Your task to perform on an android device: change the clock display to digital Image 0: 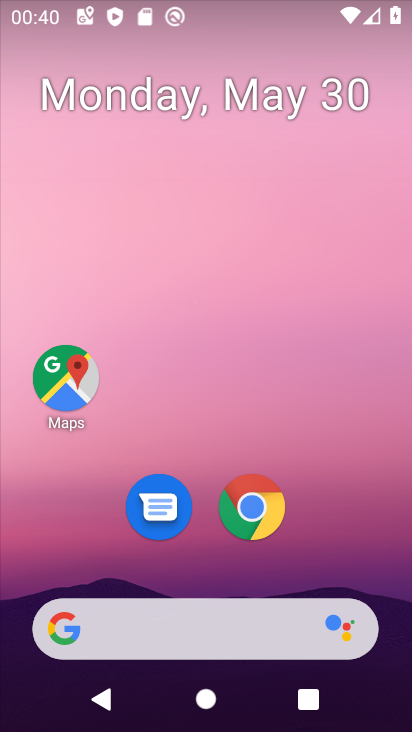
Step 0: drag from (312, 547) to (298, 247)
Your task to perform on an android device: change the clock display to digital Image 1: 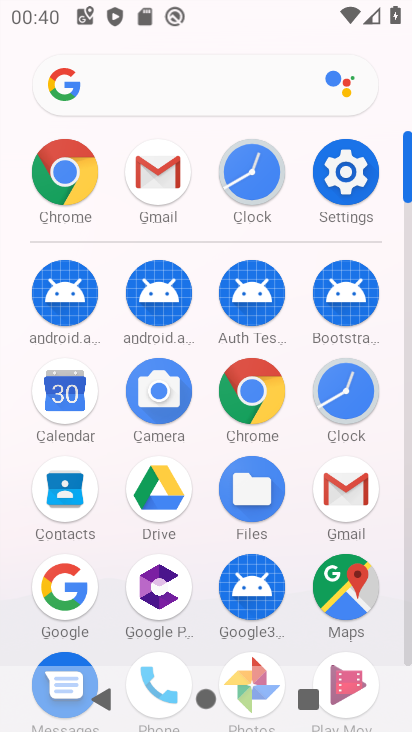
Step 1: click (339, 385)
Your task to perform on an android device: change the clock display to digital Image 2: 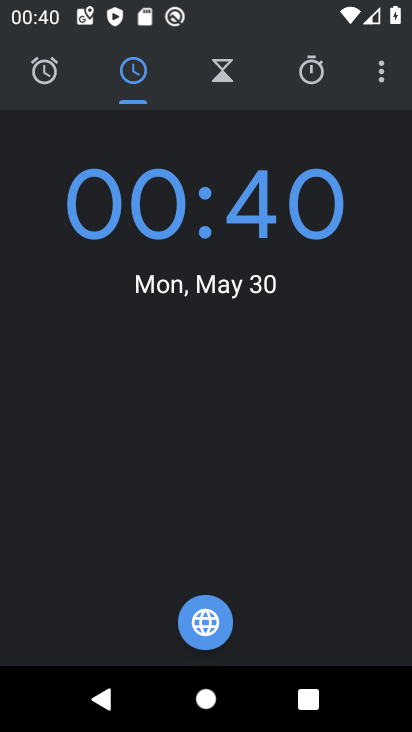
Step 2: click (383, 68)
Your task to perform on an android device: change the clock display to digital Image 3: 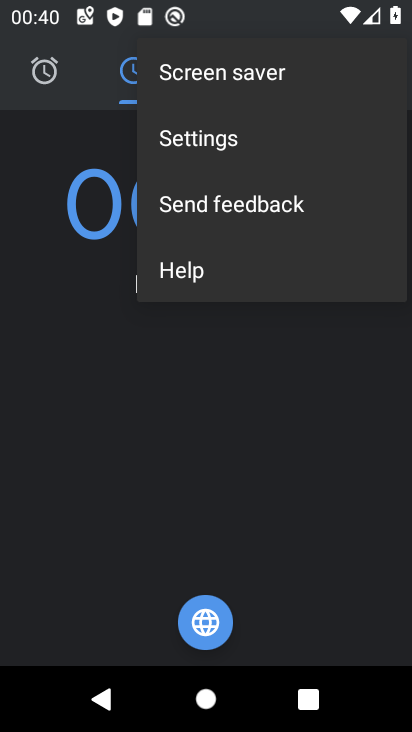
Step 3: click (267, 134)
Your task to perform on an android device: change the clock display to digital Image 4: 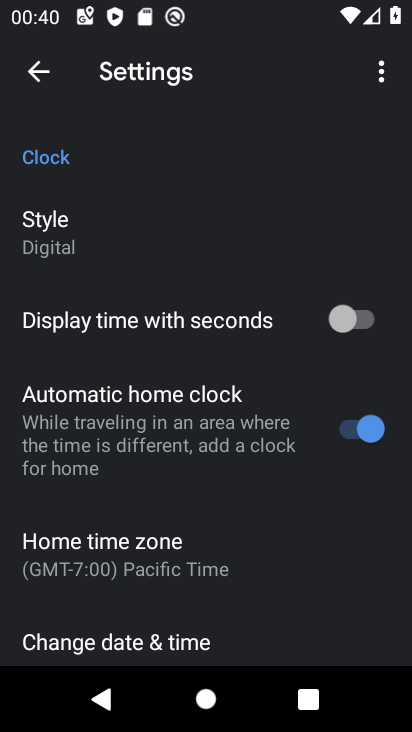
Step 4: drag from (140, 579) to (147, 423)
Your task to perform on an android device: change the clock display to digital Image 5: 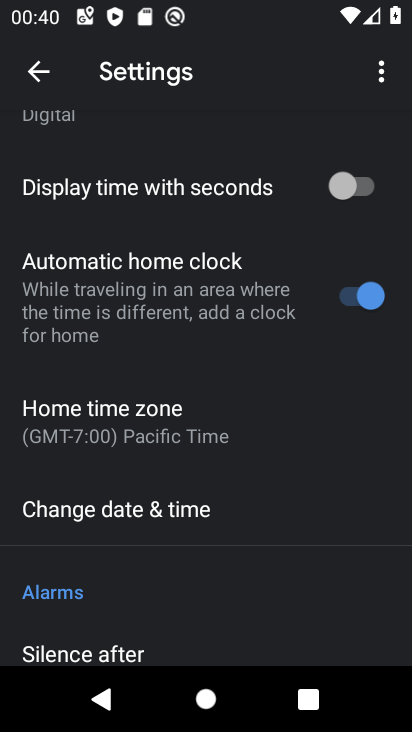
Step 5: drag from (131, 250) to (144, 479)
Your task to perform on an android device: change the clock display to digital Image 6: 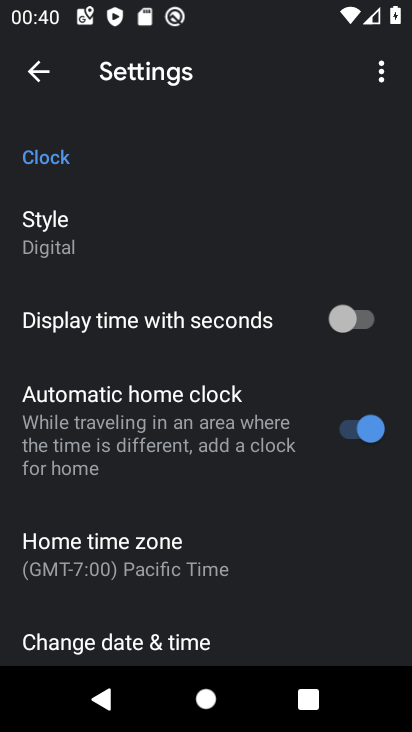
Step 6: click (85, 249)
Your task to perform on an android device: change the clock display to digital Image 7: 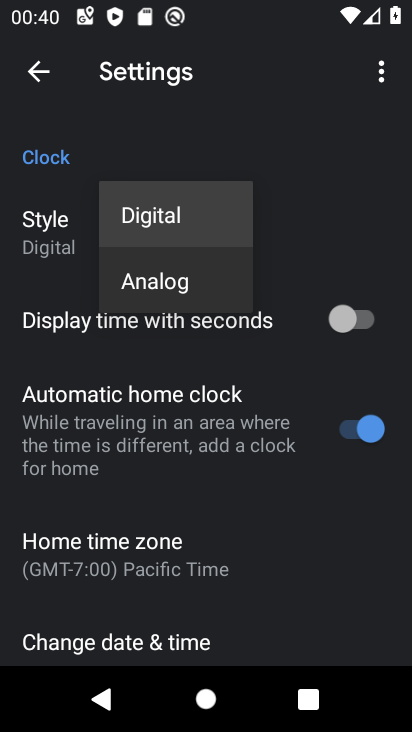
Step 7: click (166, 280)
Your task to perform on an android device: change the clock display to digital Image 8: 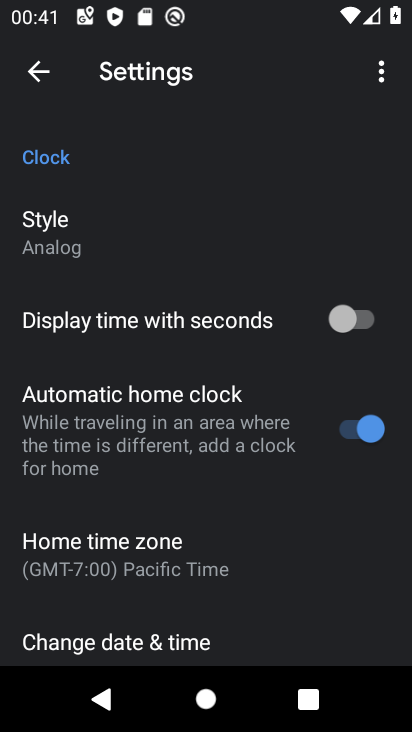
Step 8: task complete